Your task to perform on an android device: toggle pop-ups in chrome Image 0: 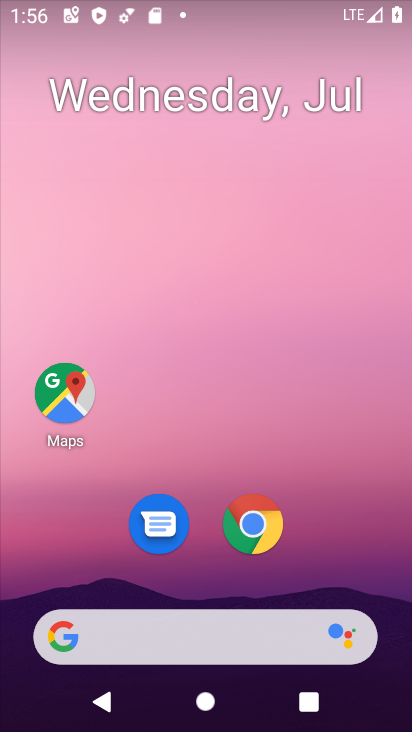
Step 0: click (269, 513)
Your task to perform on an android device: toggle pop-ups in chrome Image 1: 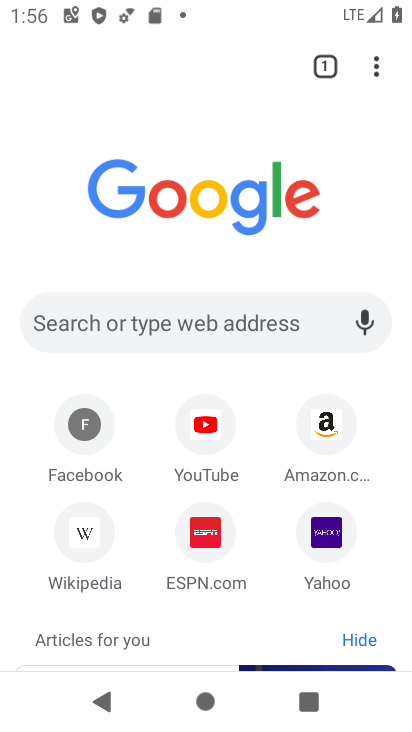
Step 1: click (377, 68)
Your task to perform on an android device: toggle pop-ups in chrome Image 2: 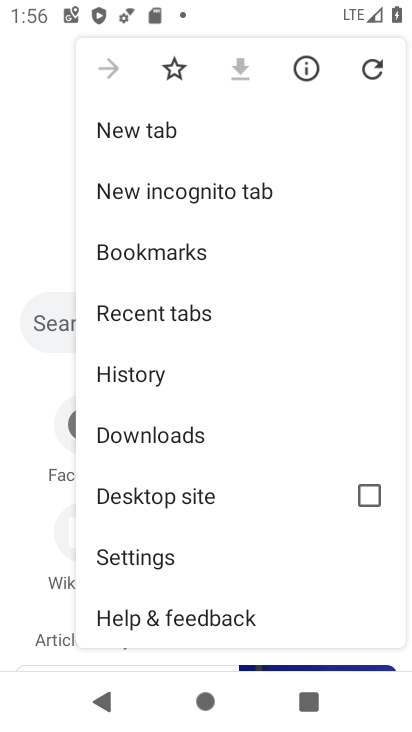
Step 2: click (149, 560)
Your task to perform on an android device: toggle pop-ups in chrome Image 3: 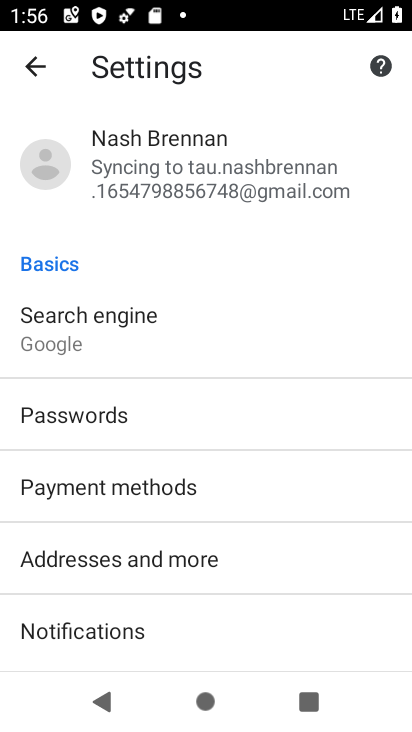
Step 3: drag from (267, 440) to (254, 185)
Your task to perform on an android device: toggle pop-ups in chrome Image 4: 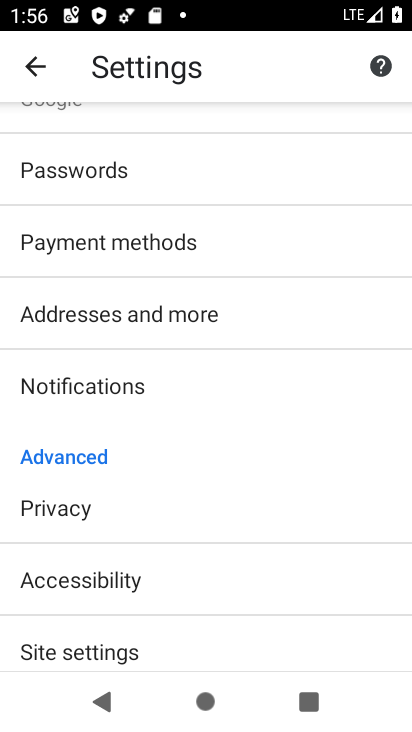
Step 4: click (118, 648)
Your task to perform on an android device: toggle pop-ups in chrome Image 5: 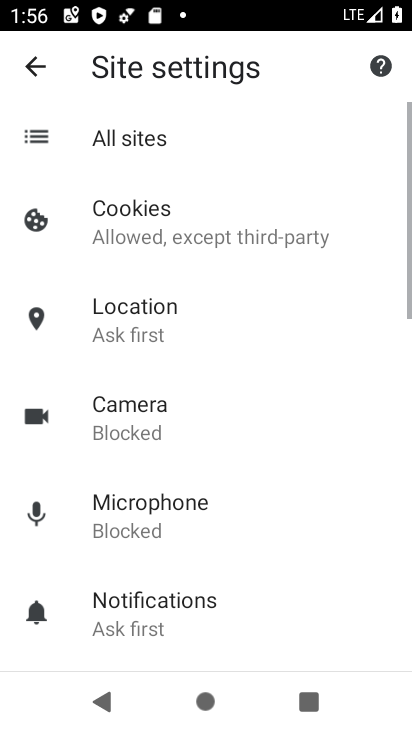
Step 5: drag from (276, 505) to (282, 143)
Your task to perform on an android device: toggle pop-ups in chrome Image 6: 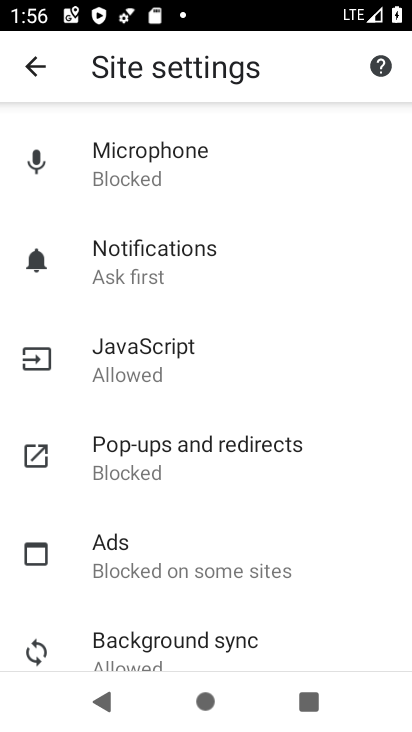
Step 6: click (228, 458)
Your task to perform on an android device: toggle pop-ups in chrome Image 7: 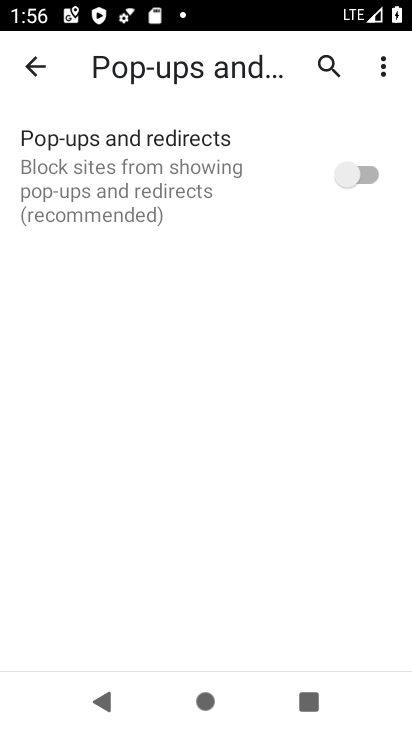
Step 7: click (366, 163)
Your task to perform on an android device: toggle pop-ups in chrome Image 8: 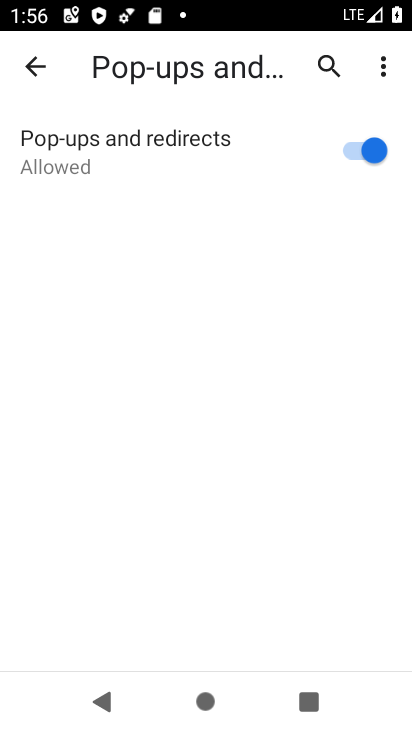
Step 8: task complete